Your task to perform on an android device: manage bookmarks in the chrome app Image 0: 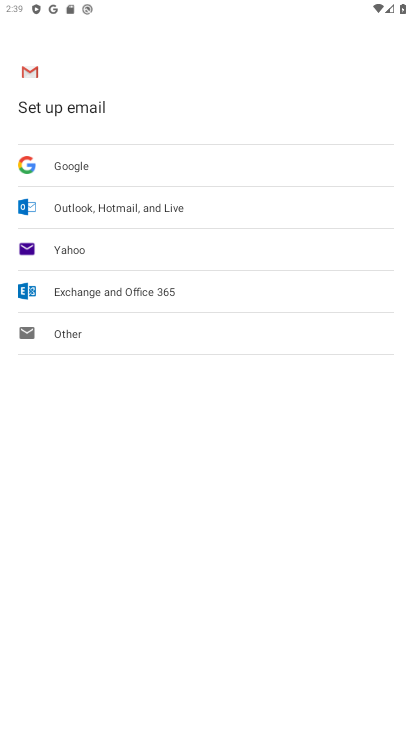
Step 0: press home button
Your task to perform on an android device: manage bookmarks in the chrome app Image 1: 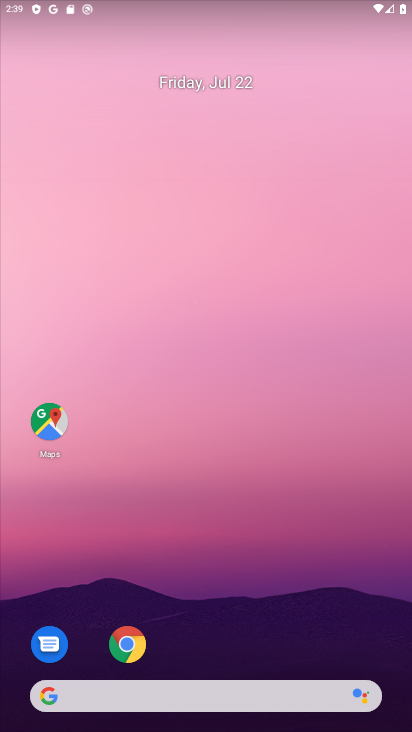
Step 1: click (141, 642)
Your task to perform on an android device: manage bookmarks in the chrome app Image 2: 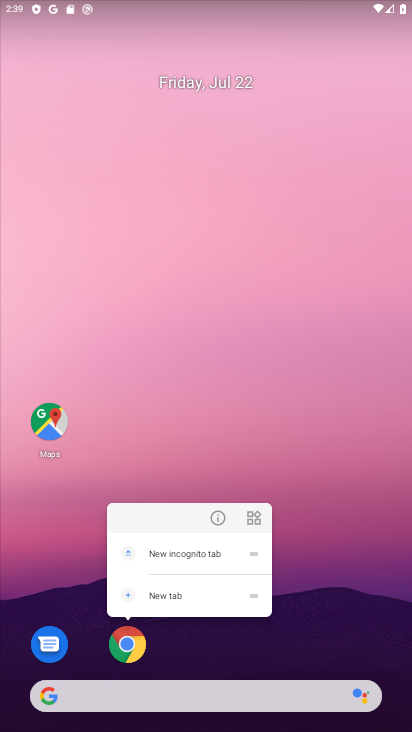
Step 2: click (118, 646)
Your task to perform on an android device: manage bookmarks in the chrome app Image 3: 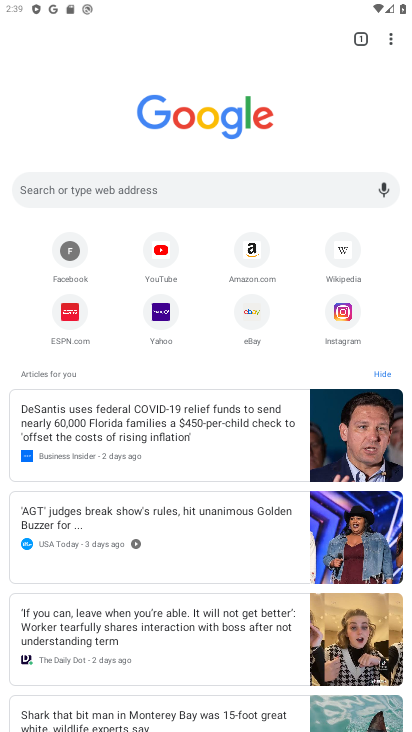
Step 3: click (394, 37)
Your task to perform on an android device: manage bookmarks in the chrome app Image 4: 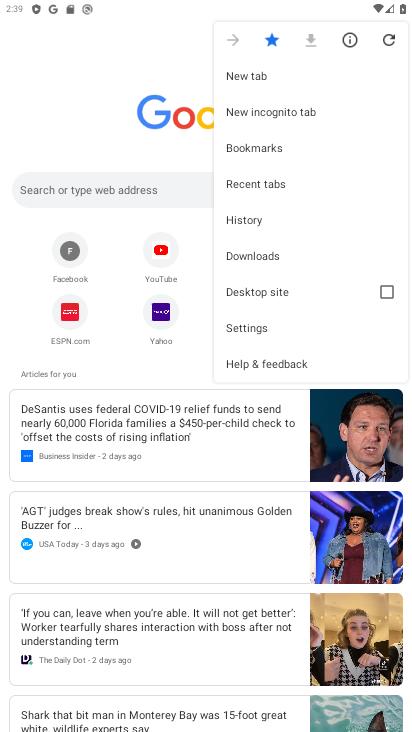
Step 4: click (267, 148)
Your task to perform on an android device: manage bookmarks in the chrome app Image 5: 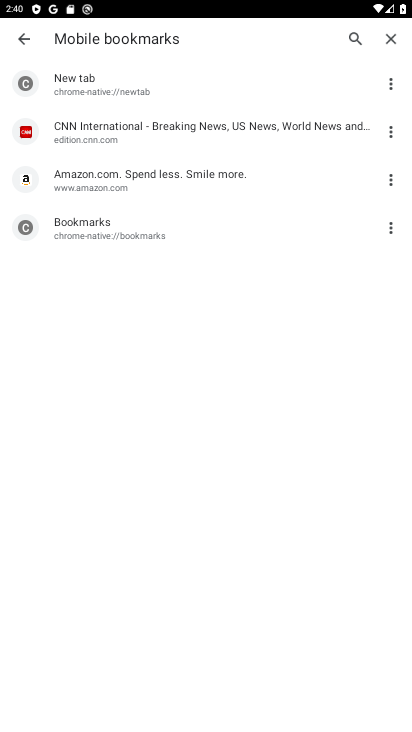
Step 5: click (30, 38)
Your task to perform on an android device: manage bookmarks in the chrome app Image 6: 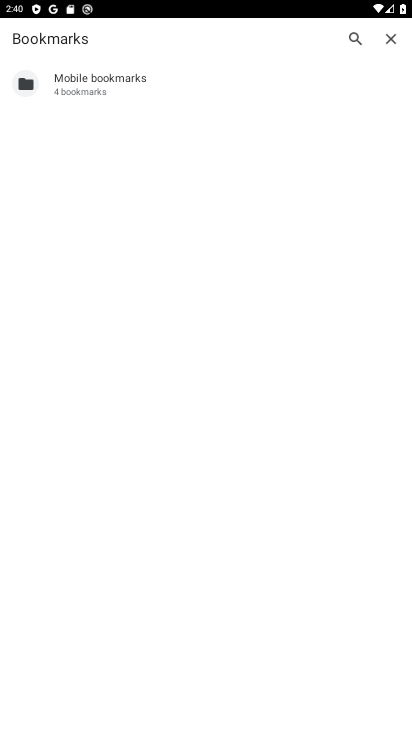
Step 6: task complete